Your task to perform on an android device: check data usage Image 0: 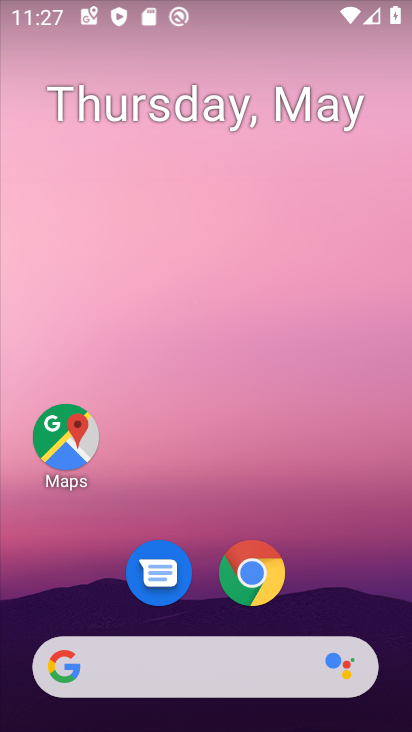
Step 0: drag from (303, 3) to (140, 628)
Your task to perform on an android device: check data usage Image 1: 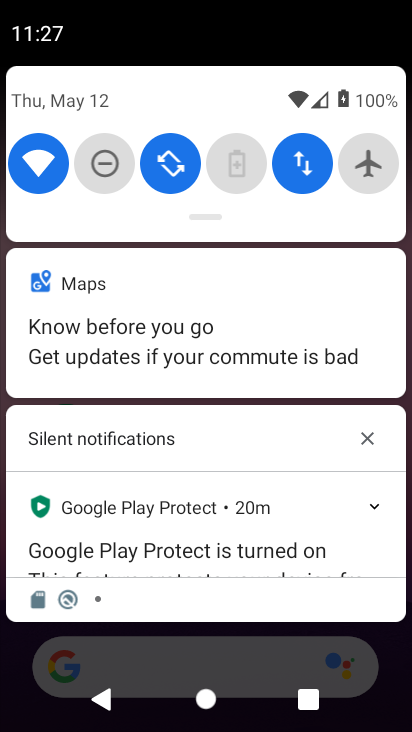
Step 1: click (311, 147)
Your task to perform on an android device: check data usage Image 2: 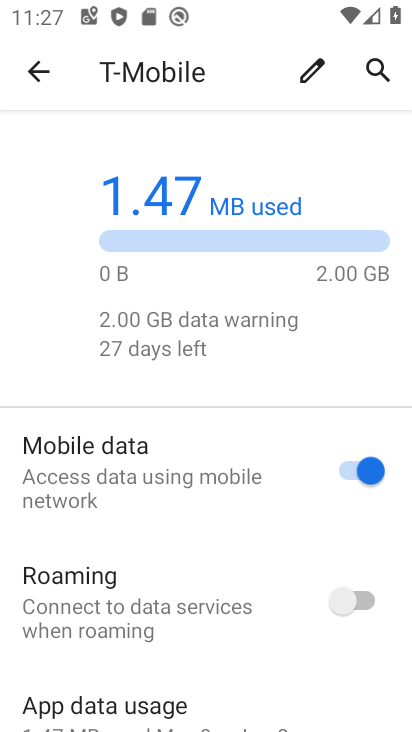
Step 2: task complete